Your task to perform on an android device: Go to Amazon Image 0: 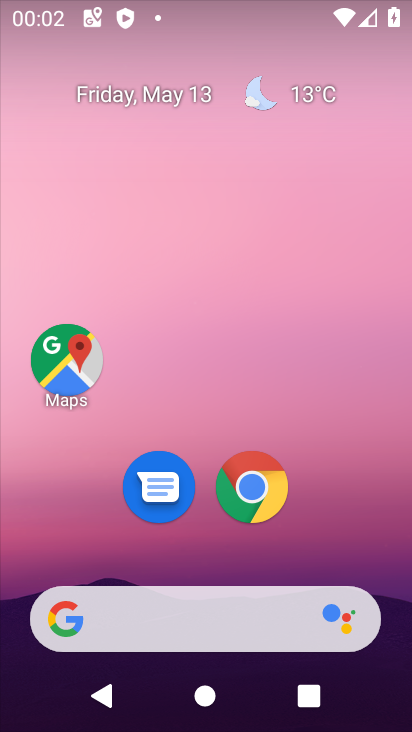
Step 0: click (278, 484)
Your task to perform on an android device: Go to Amazon Image 1: 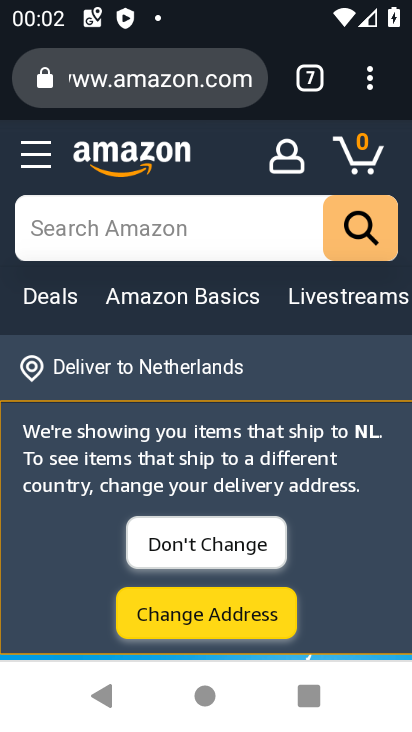
Step 1: task complete